Your task to perform on an android device: change alarm snooze length Image 0: 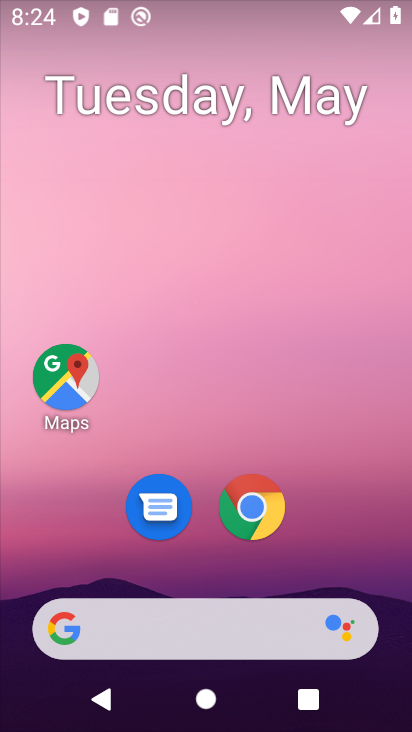
Step 0: click (300, 126)
Your task to perform on an android device: change alarm snooze length Image 1: 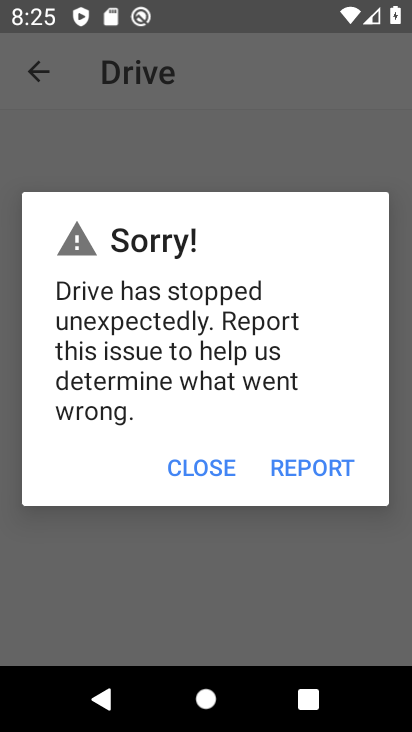
Step 1: press home button
Your task to perform on an android device: change alarm snooze length Image 2: 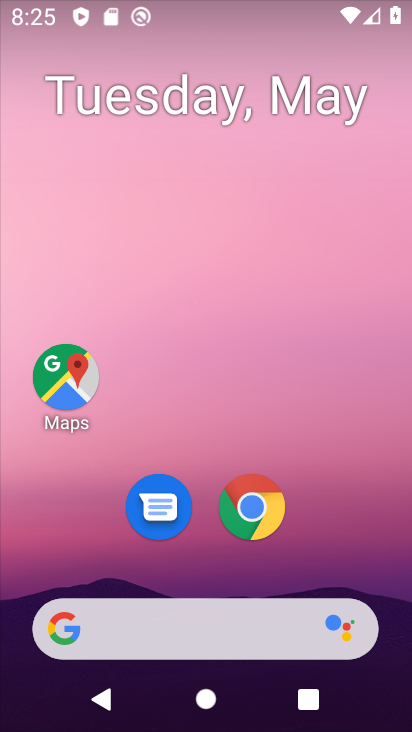
Step 2: drag from (327, 554) to (281, 70)
Your task to perform on an android device: change alarm snooze length Image 3: 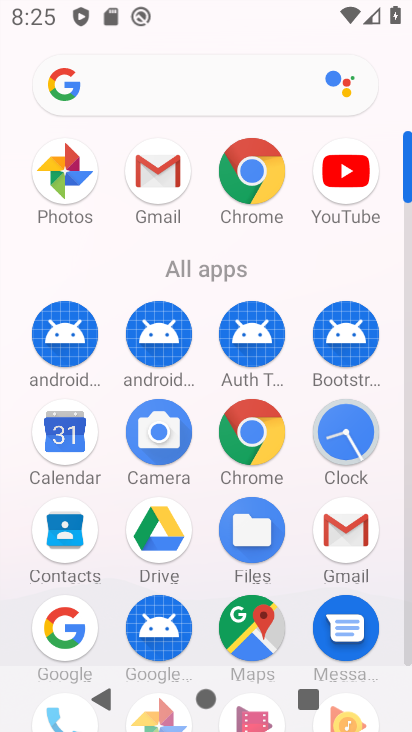
Step 3: click (332, 437)
Your task to perform on an android device: change alarm snooze length Image 4: 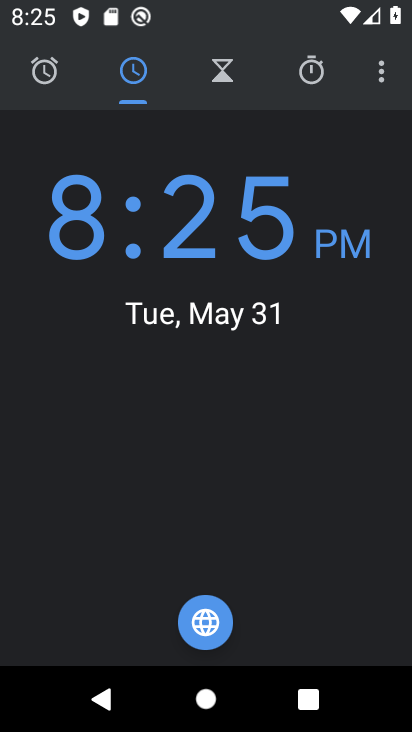
Step 4: click (382, 87)
Your task to perform on an android device: change alarm snooze length Image 5: 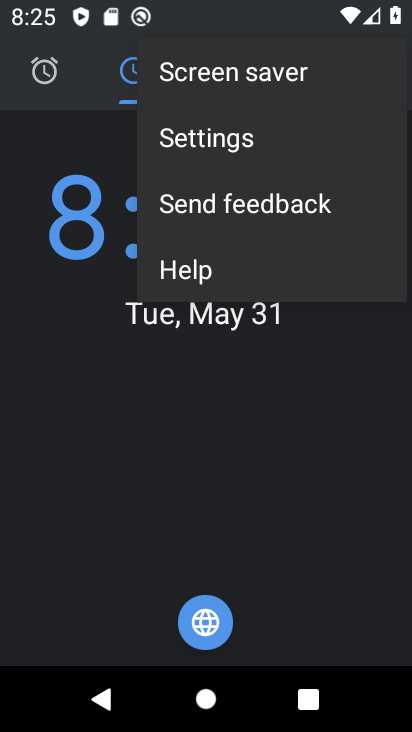
Step 5: click (304, 149)
Your task to perform on an android device: change alarm snooze length Image 6: 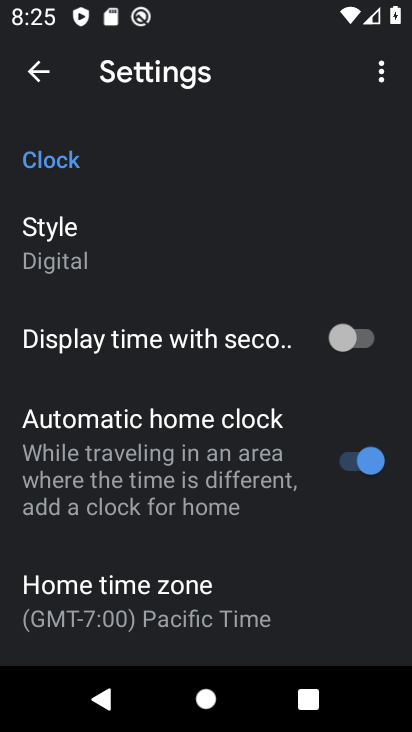
Step 6: drag from (278, 616) to (235, 202)
Your task to perform on an android device: change alarm snooze length Image 7: 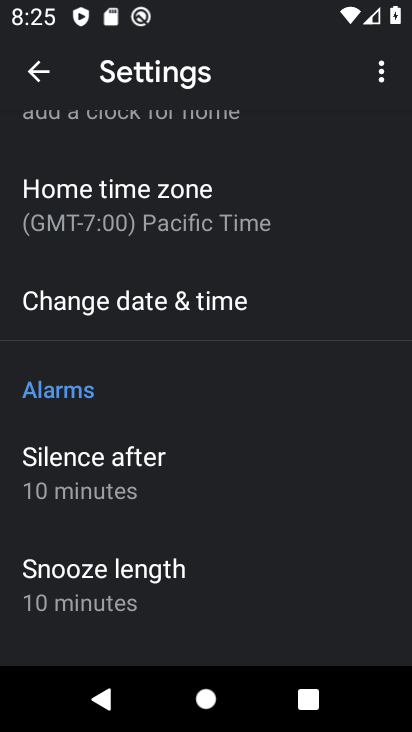
Step 7: click (241, 584)
Your task to perform on an android device: change alarm snooze length Image 8: 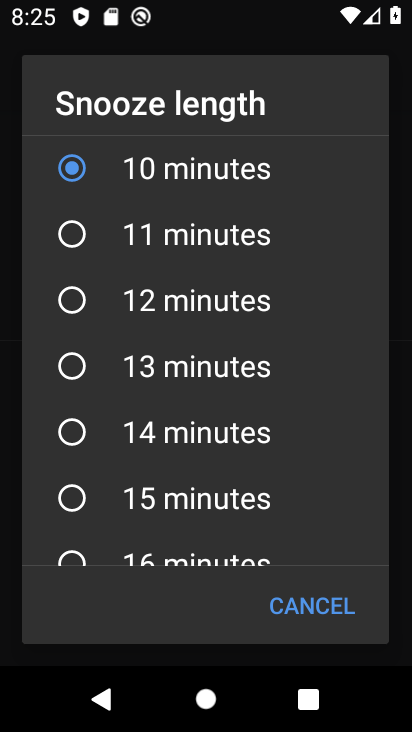
Step 8: click (199, 436)
Your task to perform on an android device: change alarm snooze length Image 9: 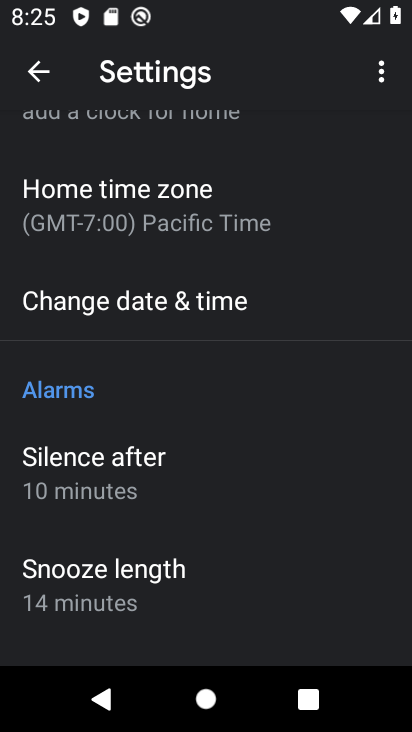
Step 9: task complete